Your task to perform on an android device: Go to sound settings Image 0: 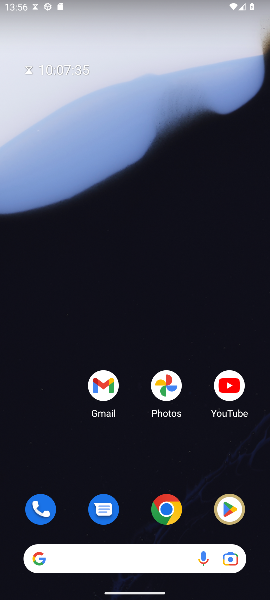
Step 0: press home button
Your task to perform on an android device: Go to sound settings Image 1: 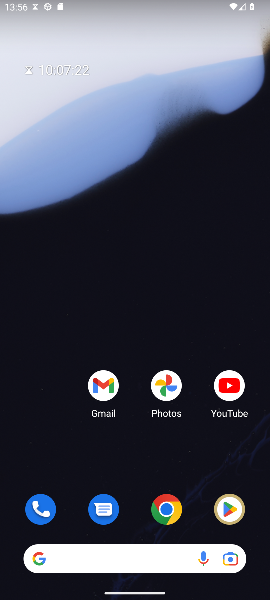
Step 1: drag from (141, 477) to (147, 100)
Your task to perform on an android device: Go to sound settings Image 2: 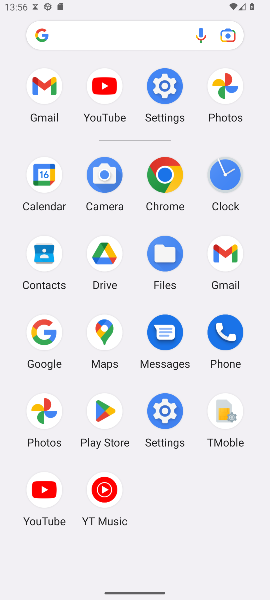
Step 2: click (163, 85)
Your task to perform on an android device: Go to sound settings Image 3: 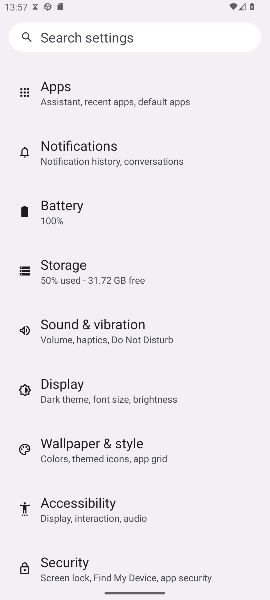
Step 3: drag from (189, 530) to (184, 174)
Your task to perform on an android device: Go to sound settings Image 4: 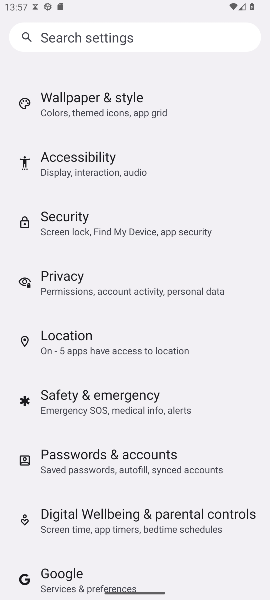
Step 4: drag from (194, 566) to (181, 597)
Your task to perform on an android device: Go to sound settings Image 5: 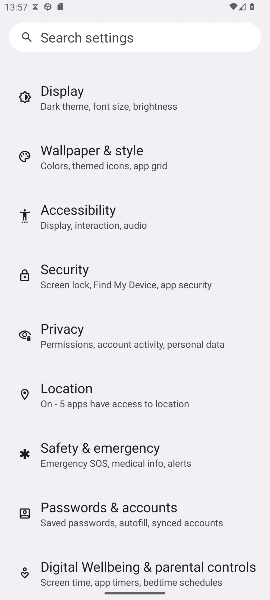
Step 5: drag from (179, 200) to (179, 592)
Your task to perform on an android device: Go to sound settings Image 6: 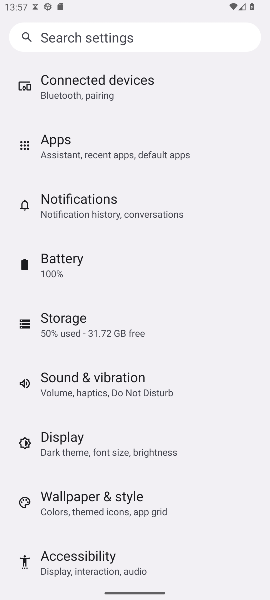
Step 6: click (83, 387)
Your task to perform on an android device: Go to sound settings Image 7: 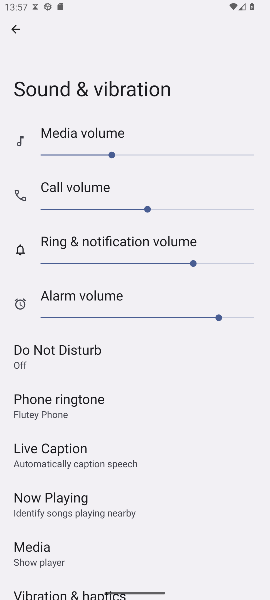
Step 7: task complete